Your task to perform on an android device: turn on notifications settings in the gmail app Image 0: 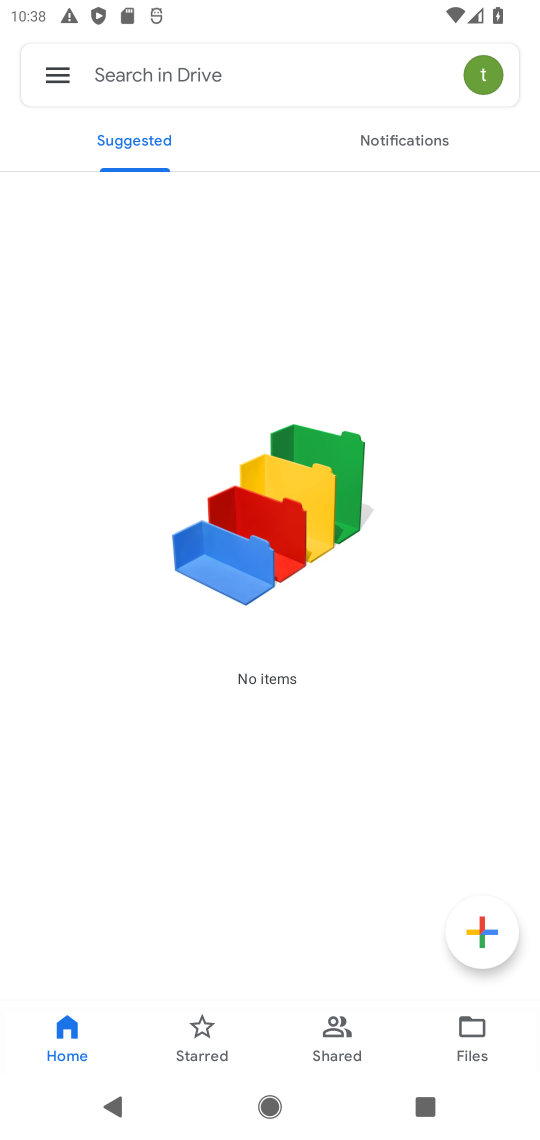
Step 0: press back button
Your task to perform on an android device: turn on notifications settings in the gmail app Image 1: 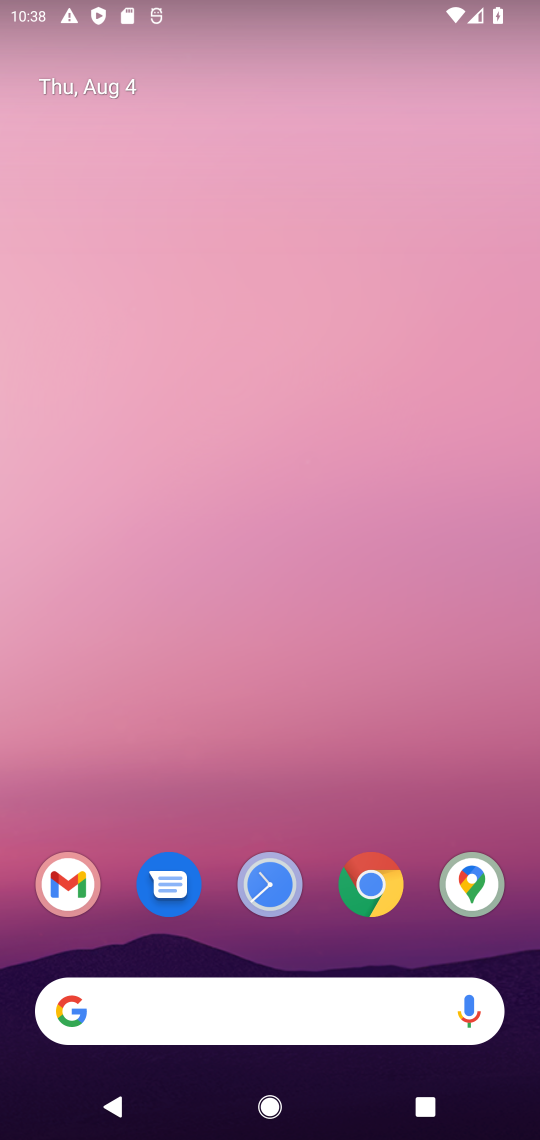
Step 1: drag from (248, 1007) to (281, 171)
Your task to perform on an android device: turn on notifications settings in the gmail app Image 2: 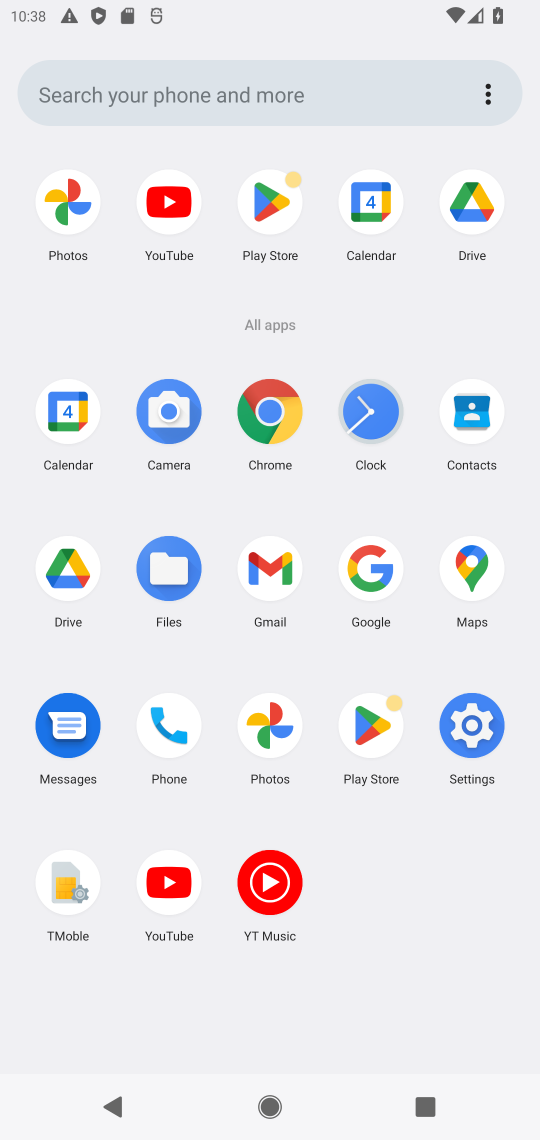
Step 2: click (271, 590)
Your task to perform on an android device: turn on notifications settings in the gmail app Image 3: 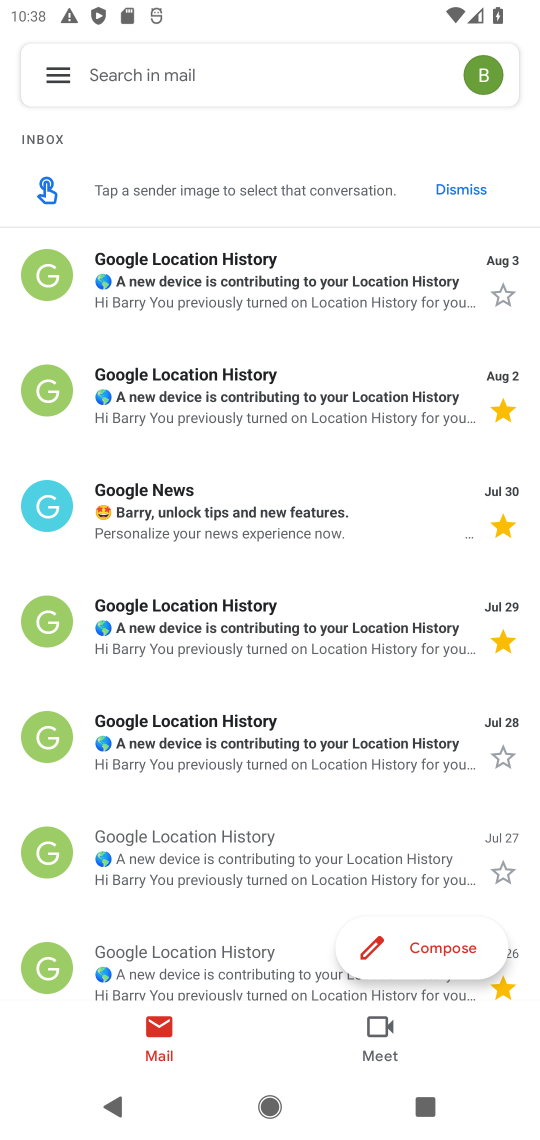
Step 3: click (72, 69)
Your task to perform on an android device: turn on notifications settings in the gmail app Image 4: 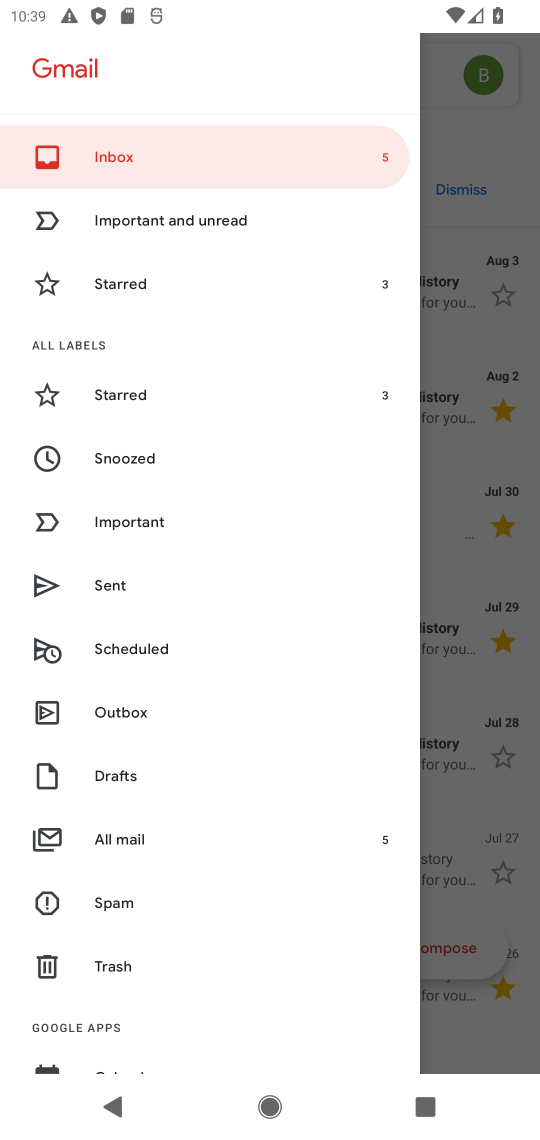
Step 4: drag from (251, 962) to (164, 59)
Your task to perform on an android device: turn on notifications settings in the gmail app Image 5: 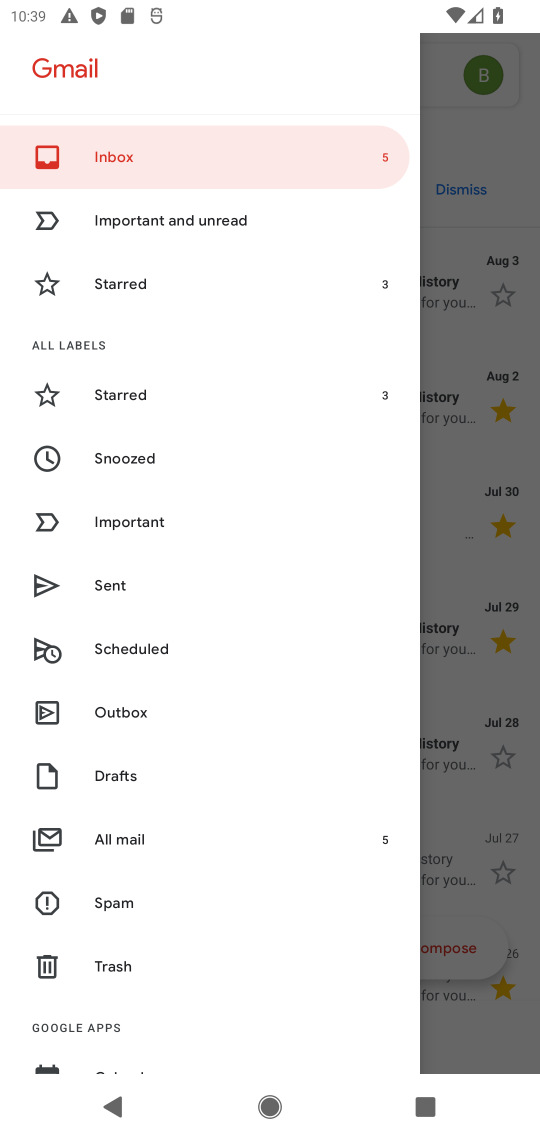
Step 5: drag from (174, 750) to (316, 117)
Your task to perform on an android device: turn on notifications settings in the gmail app Image 6: 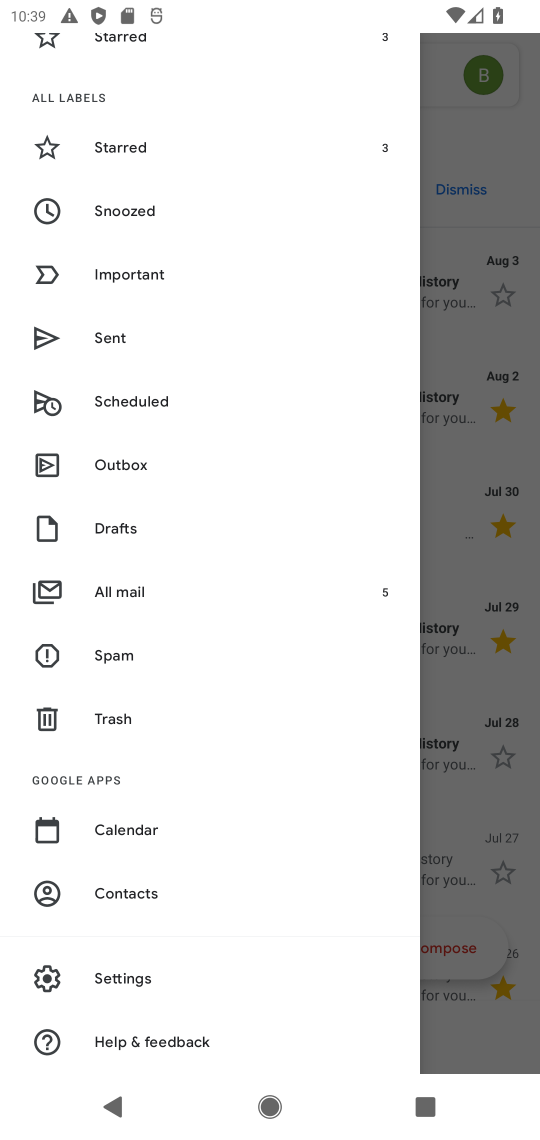
Step 6: click (134, 975)
Your task to perform on an android device: turn on notifications settings in the gmail app Image 7: 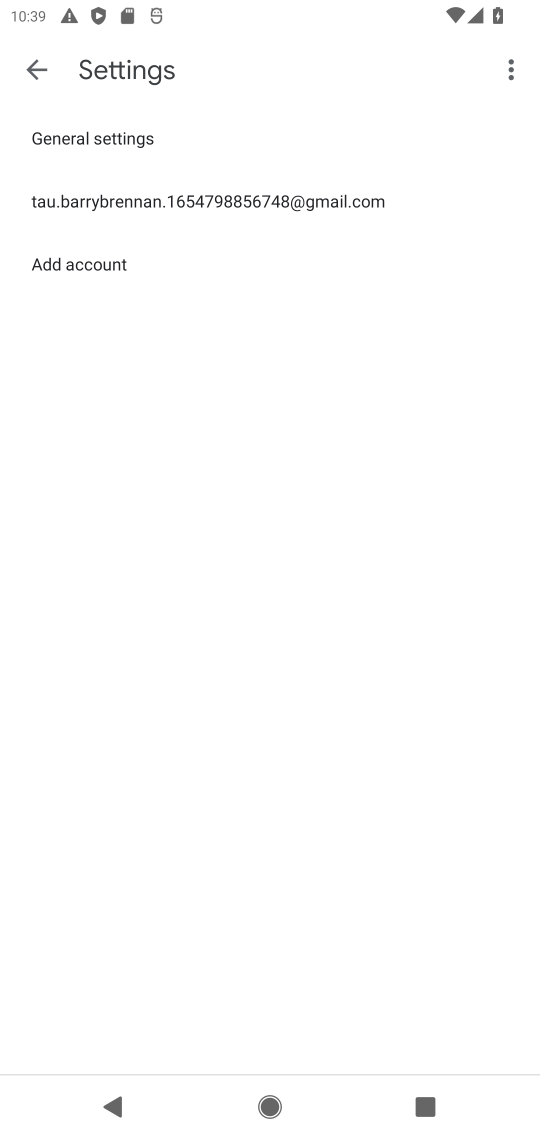
Step 7: click (177, 197)
Your task to perform on an android device: turn on notifications settings in the gmail app Image 8: 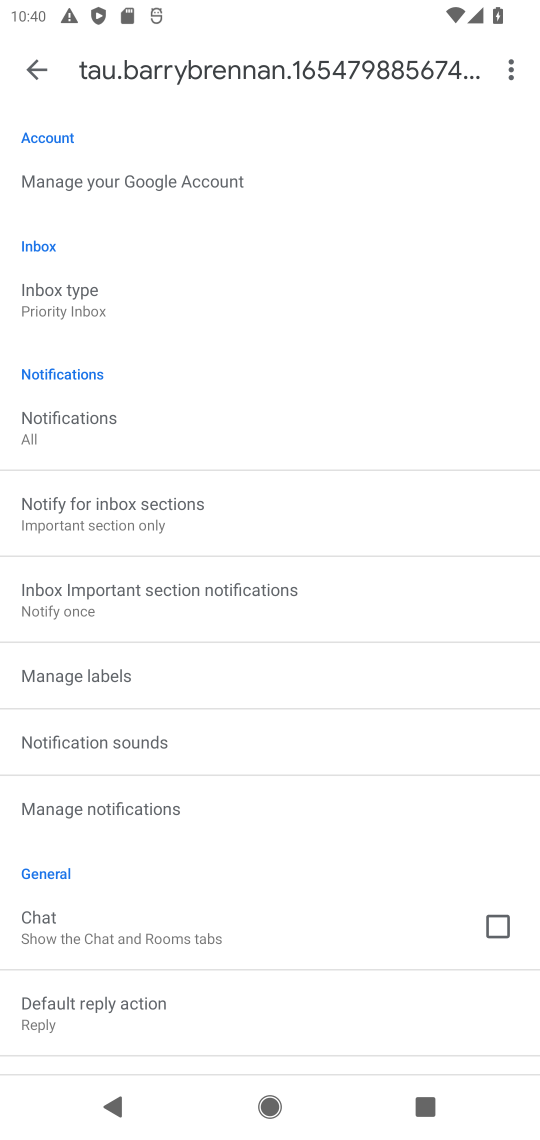
Step 8: drag from (350, 964) to (383, 326)
Your task to perform on an android device: turn on notifications settings in the gmail app Image 9: 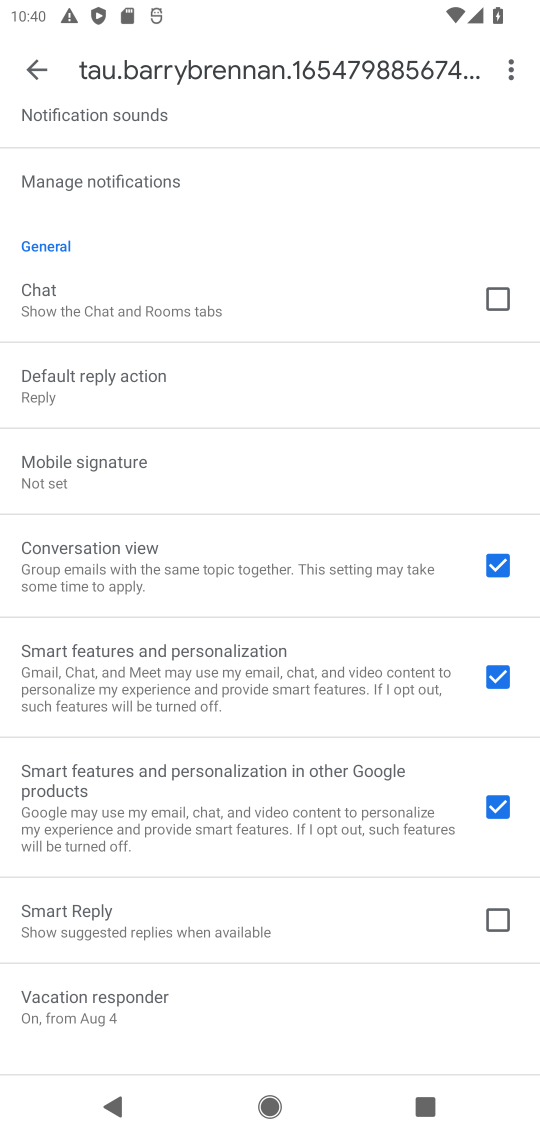
Step 9: click (135, 180)
Your task to perform on an android device: turn on notifications settings in the gmail app Image 10: 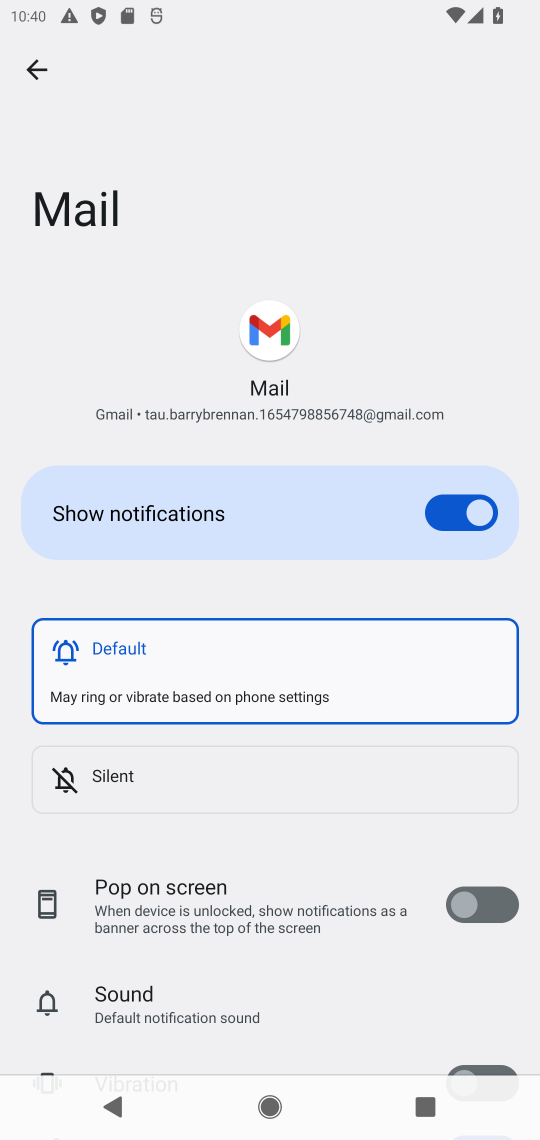
Step 10: task complete